Your task to perform on an android device: Open network settings Image 0: 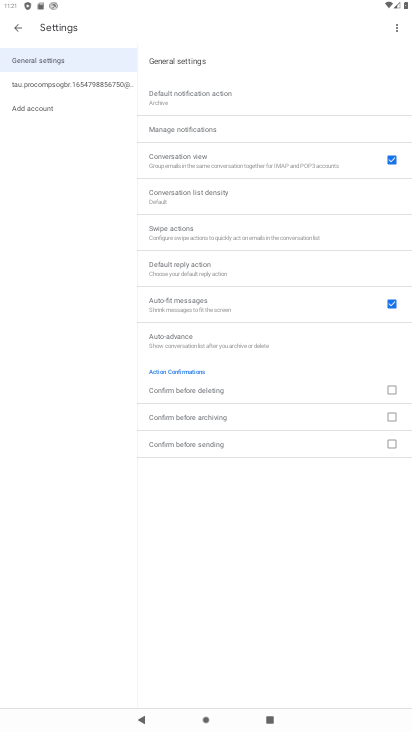
Step 0: press home button
Your task to perform on an android device: Open network settings Image 1: 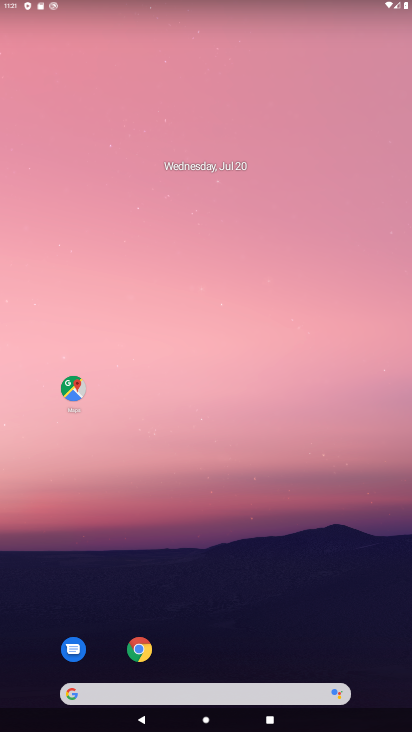
Step 1: drag from (229, 643) to (314, 203)
Your task to perform on an android device: Open network settings Image 2: 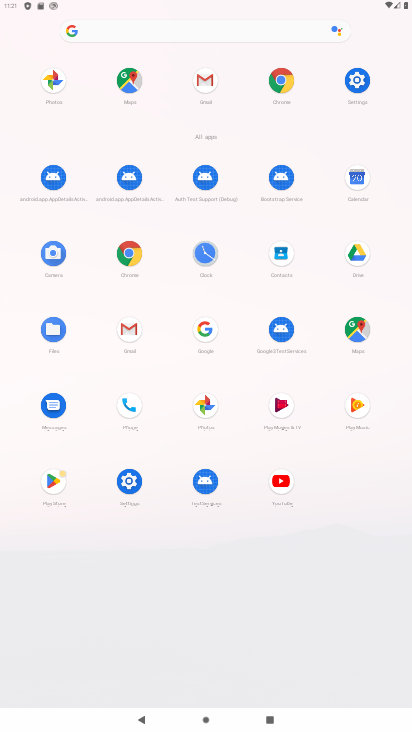
Step 2: click (363, 77)
Your task to perform on an android device: Open network settings Image 3: 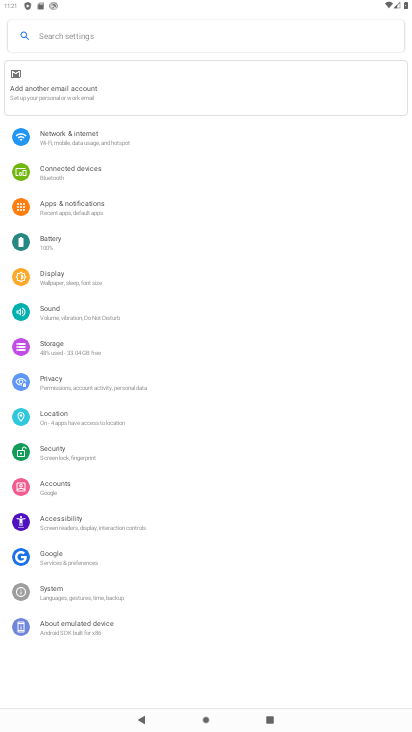
Step 3: click (87, 145)
Your task to perform on an android device: Open network settings Image 4: 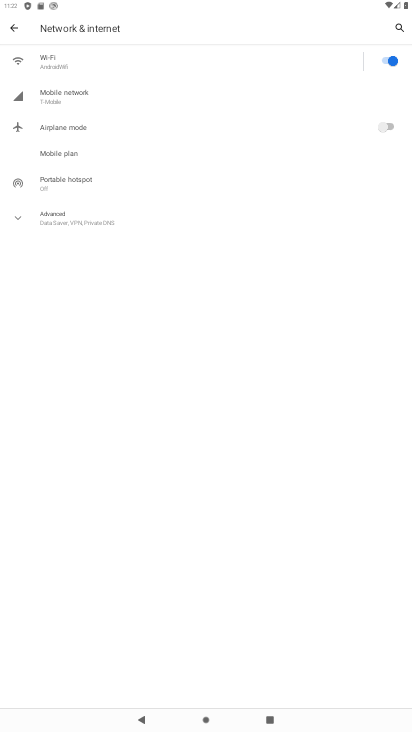
Step 4: task complete